Your task to perform on an android device: Show me productivity apps on the Play Store Image 0: 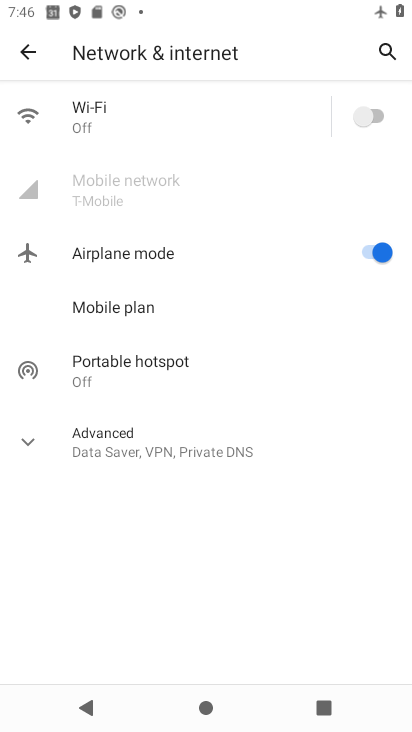
Step 0: press home button
Your task to perform on an android device: Show me productivity apps on the Play Store Image 1: 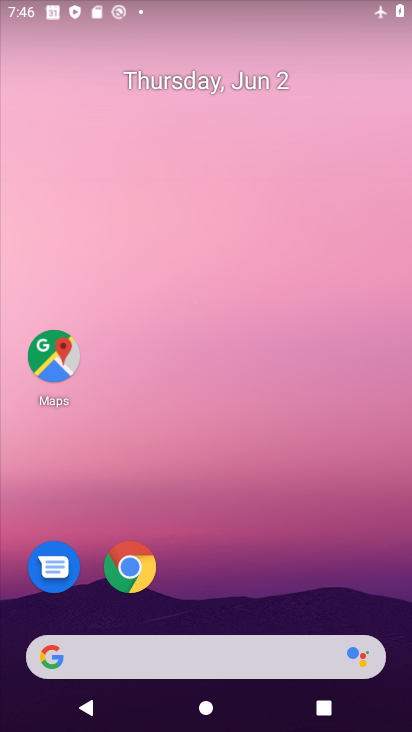
Step 1: drag from (372, 588) to (385, 189)
Your task to perform on an android device: Show me productivity apps on the Play Store Image 2: 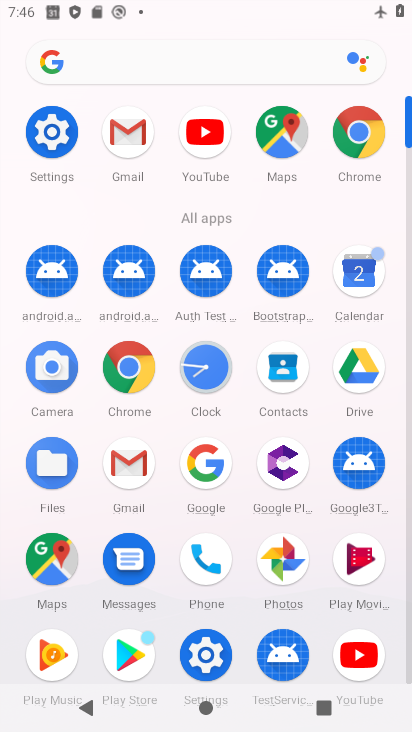
Step 2: drag from (394, 617) to (392, 443)
Your task to perform on an android device: Show me productivity apps on the Play Store Image 3: 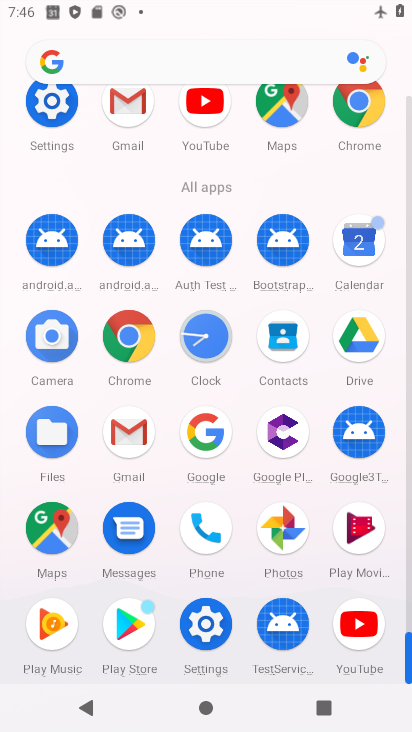
Step 3: click (136, 631)
Your task to perform on an android device: Show me productivity apps on the Play Store Image 4: 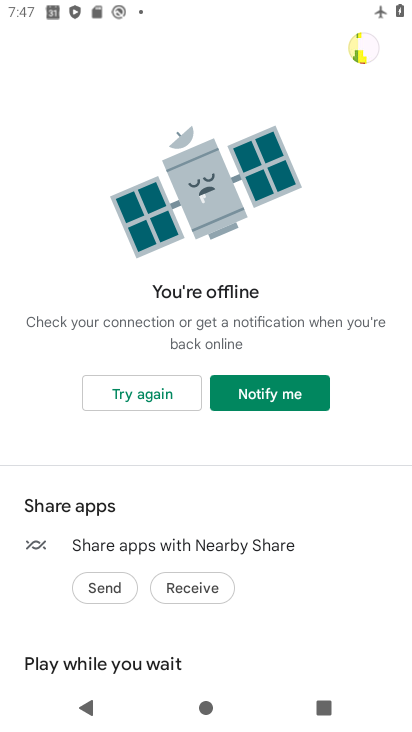
Step 4: task complete